Your task to perform on an android device: check google app version Image 0: 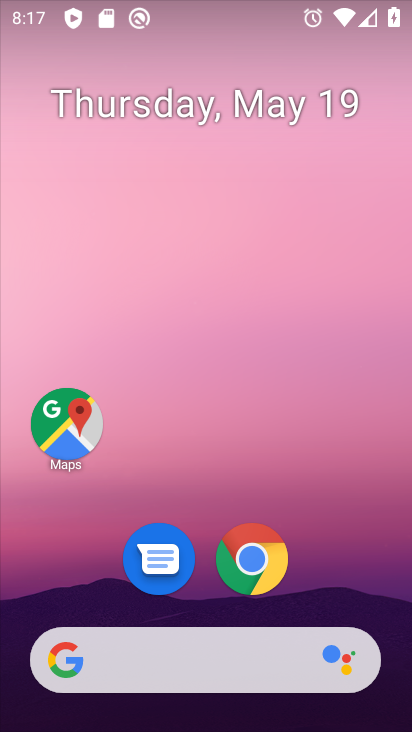
Step 0: press home button
Your task to perform on an android device: check google app version Image 1: 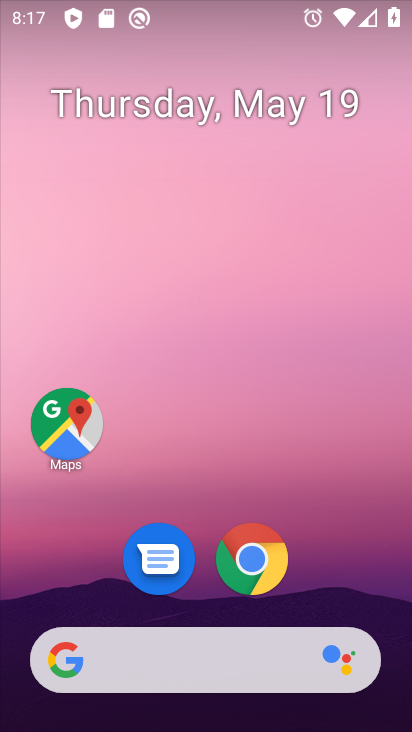
Step 1: drag from (358, 568) to (344, 0)
Your task to perform on an android device: check google app version Image 2: 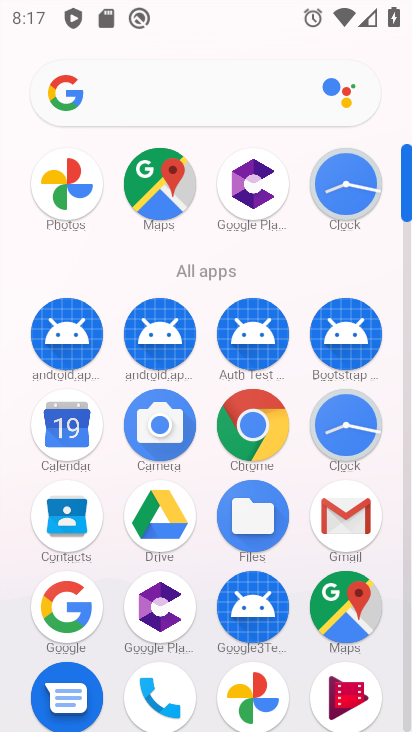
Step 2: click (74, 590)
Your task to perform on an android device: check google app version Image 3: 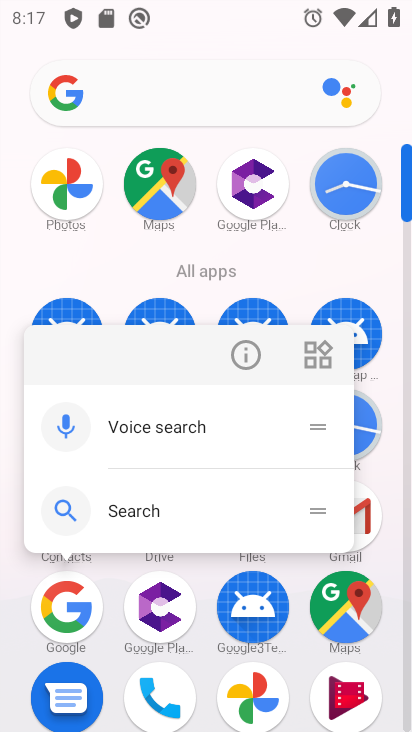
Step 3: click (234, 359)
Your task to perform on an android device: check google app version Image 4: 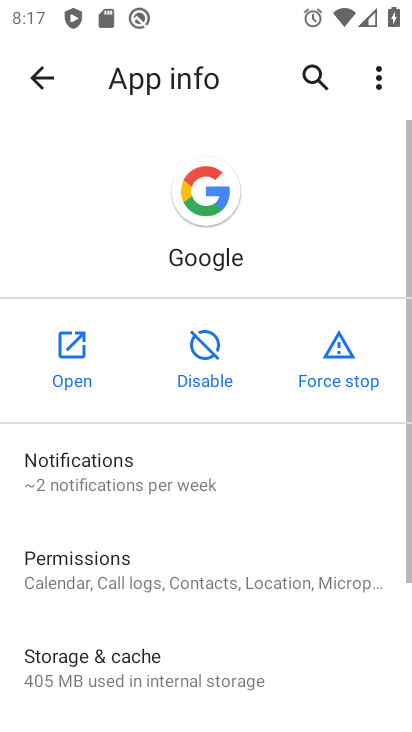
Step 4: drag from (231, 539) to (227, 23)
Your task to perform on an android device: check google app version Image 5: 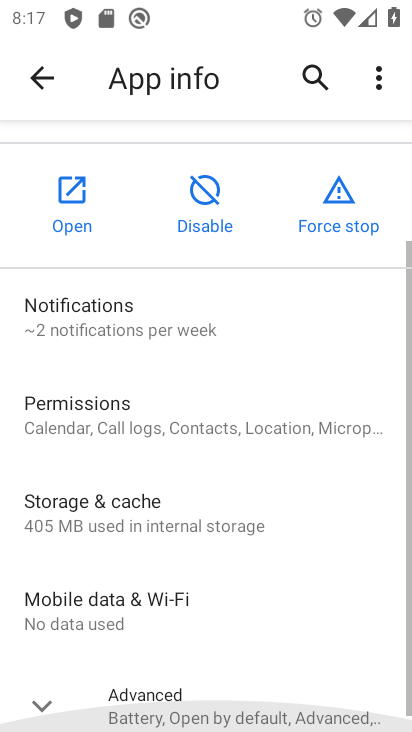
Step 5: drag from (233, 445) to (222, 67)
Your task to perform on an android device: check google app version Image 6: 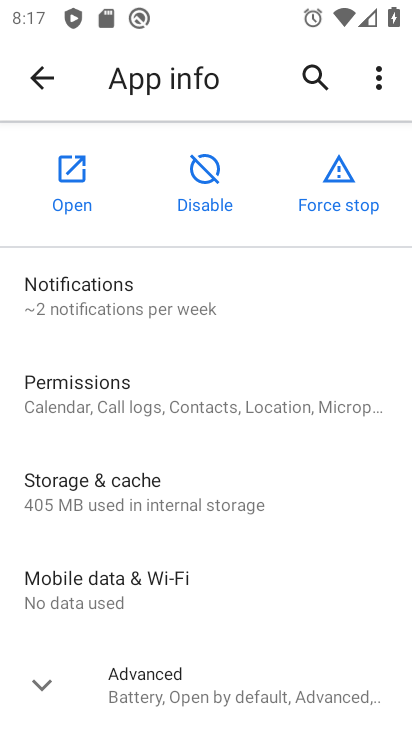
Step 6: click (207, 648)
Your task to perform on an android device: check google app version Image 7: 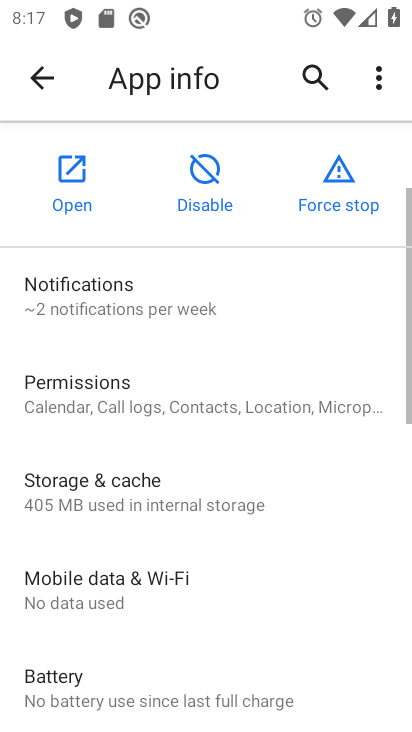
Step 7: task complete